Your task to perform on an android device: delete browsing data in the chrome app Image 0: 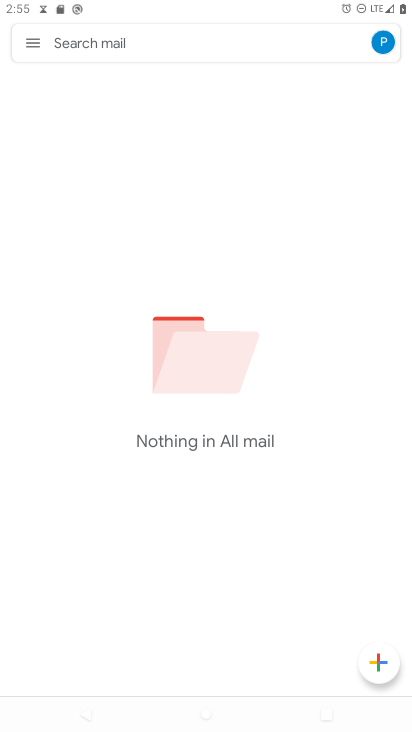
Step 0: press home button
Your task to perform on an android device: delete browsing data in the chrome app Image 1: 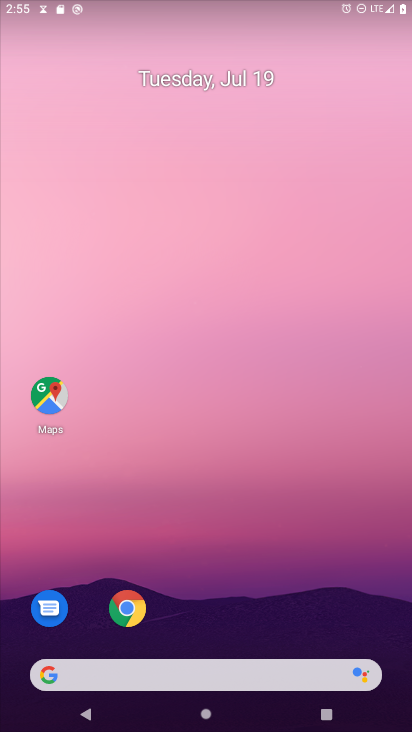
Step 1: drag from (304, 663) to (326, 50)
Your task to perform on an android device: delete browsing data in the chrome app Image 2: 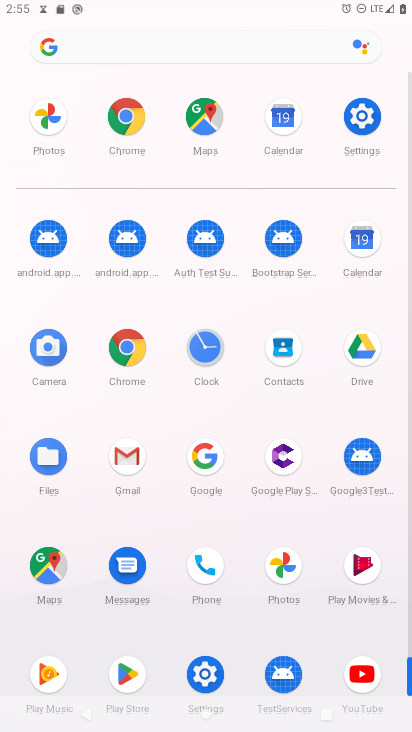
Step 2: click (124, 360)
Your task to perform on an android device: delete browsing data in the chrome app Image 3: 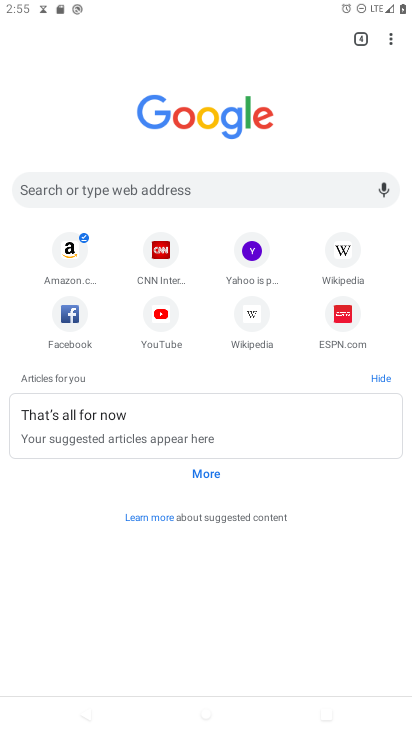
Step 3: drag from (380, 59) to (267, 326)
Your task to perform on an android device: delete browsing data in the chrome app Image 4: 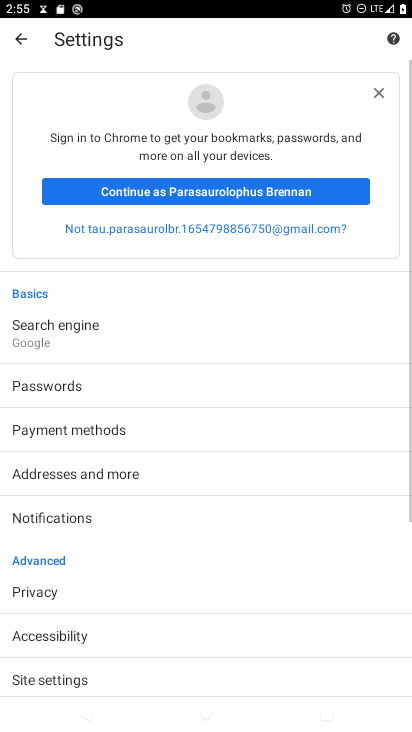
Step 4: click (71, 602)
Your task to perform on an android device: delete browsing data in the chrome app Image 5: 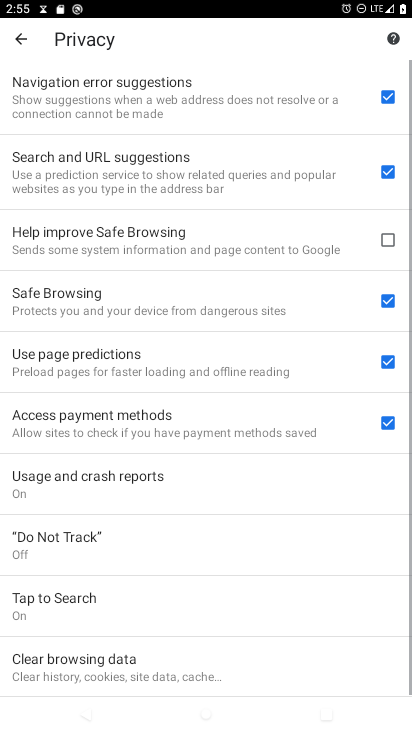
Step 5: click (93, 658)
Your task to perform on an android device: delete browsing data in the chrome app Image 6: 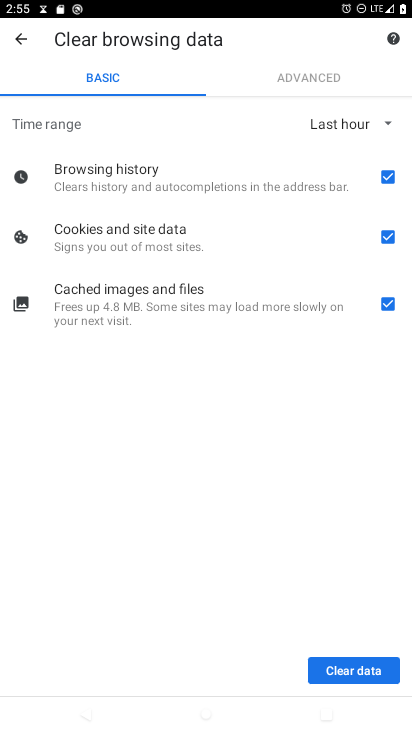
Step 6: click (338, 678)
Your task to perform on an android device: delete browsing data in the chrome app Image 7: 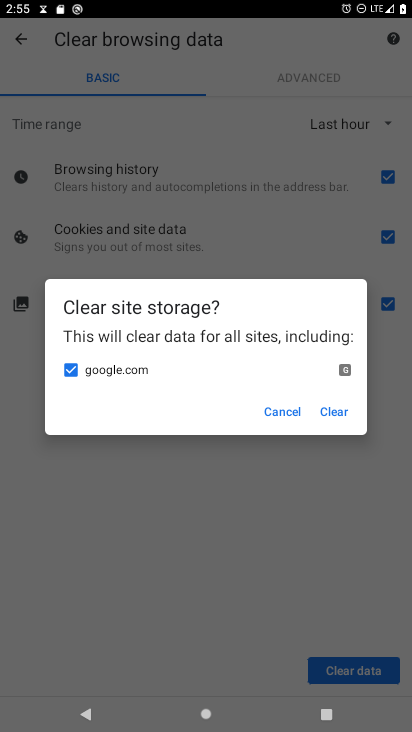
Step 7: click (341, 412)
Your task to perform on an android device: delete browsing data in the chrome app Image 8: 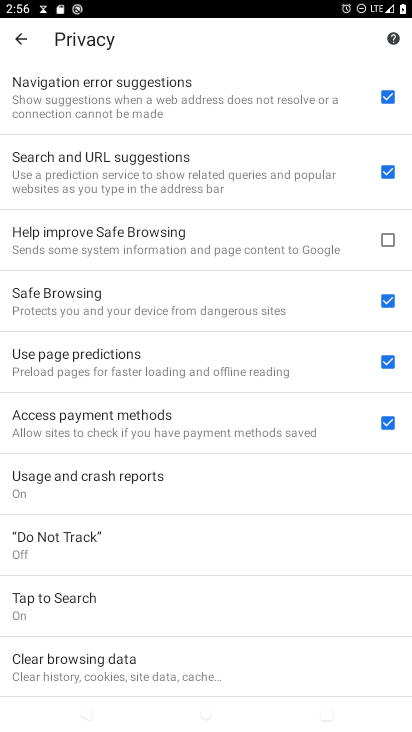
Step 8: task complete